Your task to perform on an android device: Do I have any events tomorrow? Image 0: 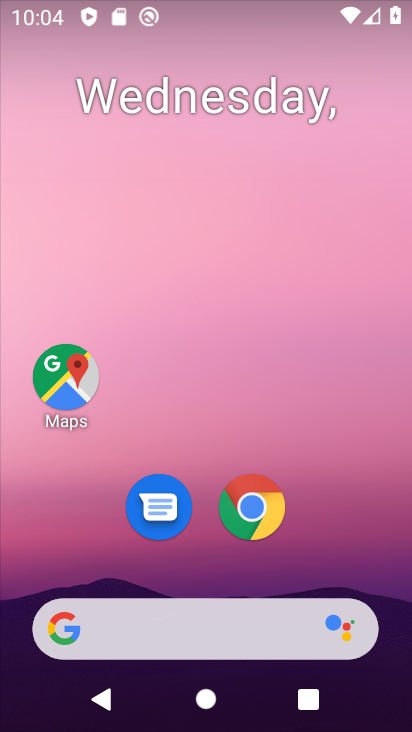
Step 0: drag from (219, 677) to (181, 386)
Your task to perform on an android device: Do I have any events tomorrow? Image 1: 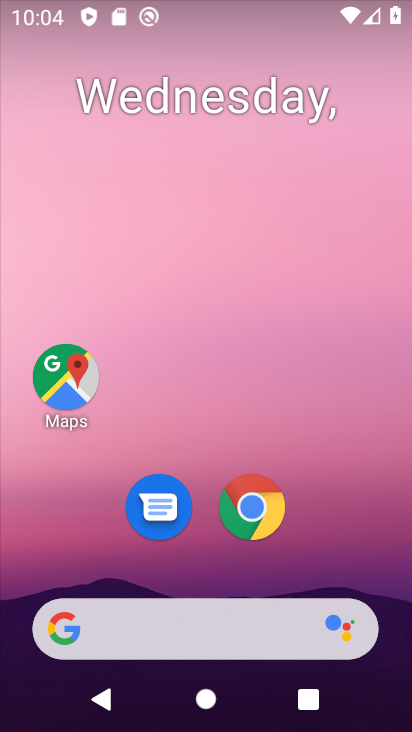
Step 1: drag from (233, 646) to (199, 174)
Your task to perform on an android device: Do I have any events tomorrow? Image 2: 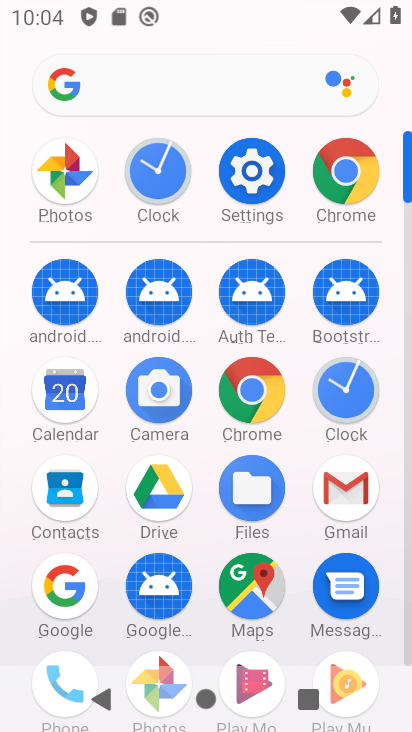
Step 2: click (63, 393)
Your task to perform on an android device: Do I have any events tomorrow? Image 3: 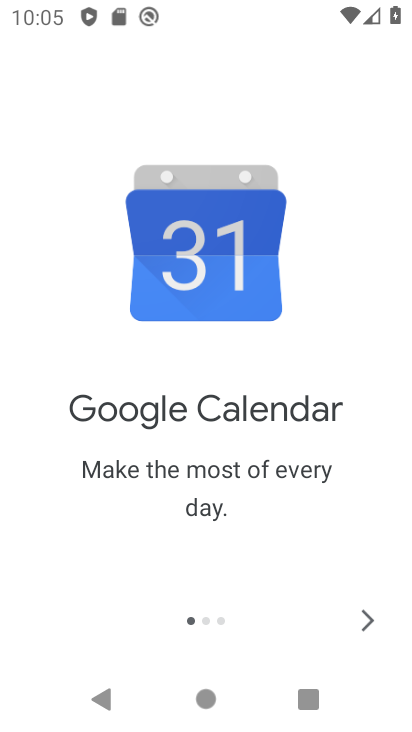
Step 3: click (356, 629)
Your task to perform on an android device: Do I have any events tomorrow? Image 4: 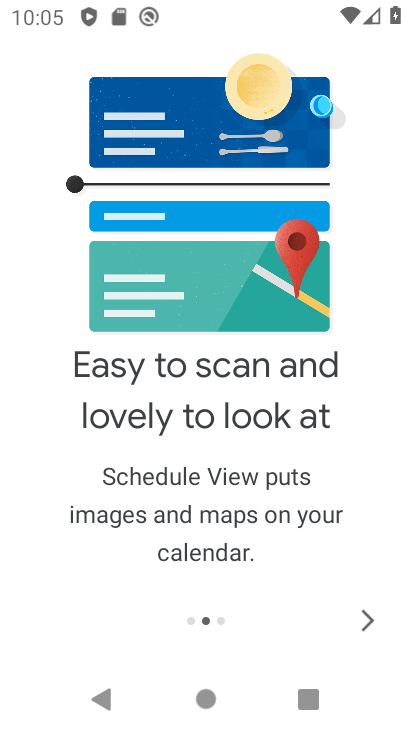
Step 4: click (361, 608)
Your task to perform on an android device: Do I have any events tomorrow? Image 5: 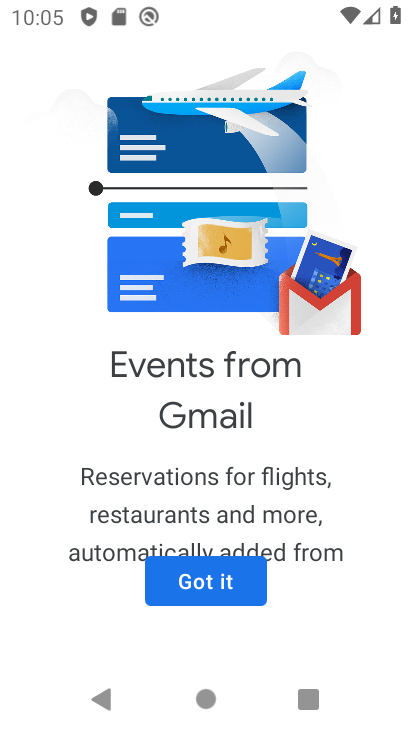
Step 5: click (347, 623)
Your task to perform on an android device: Do I have any events tomorrow? Image 6: 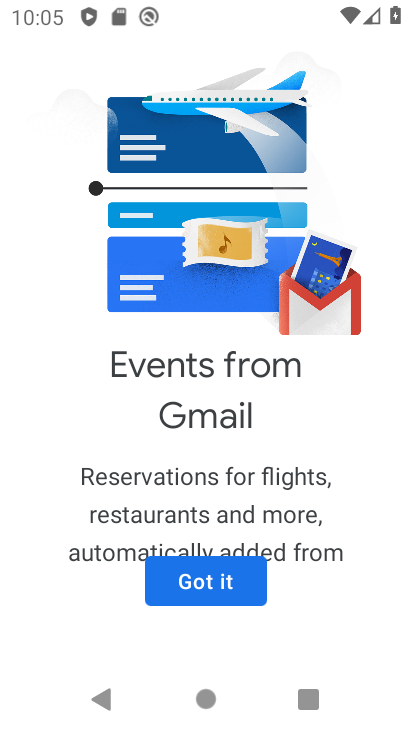
Step 6: click (191, 584)
Your task to perform on an android device: Do I have any events tomorrow? Image 7: 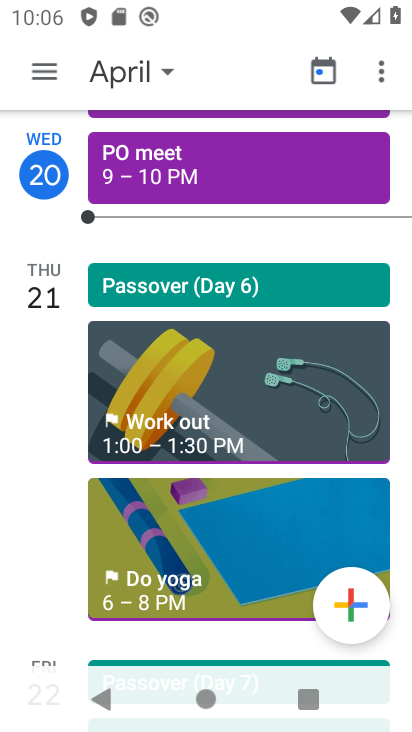
Step 7: click (54, 91)
Your task to perform on an android device: Do I have any events tomorrow? Image 8: 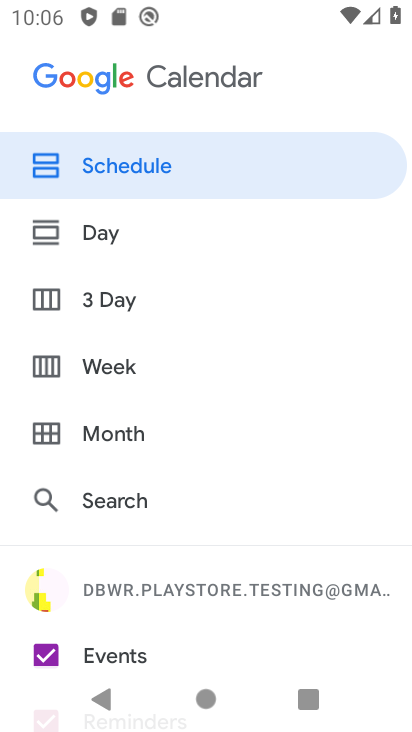
Step 8: click (87, 288)
Your task to perform on an android device: Do I have any events tomorrow? Image 9: 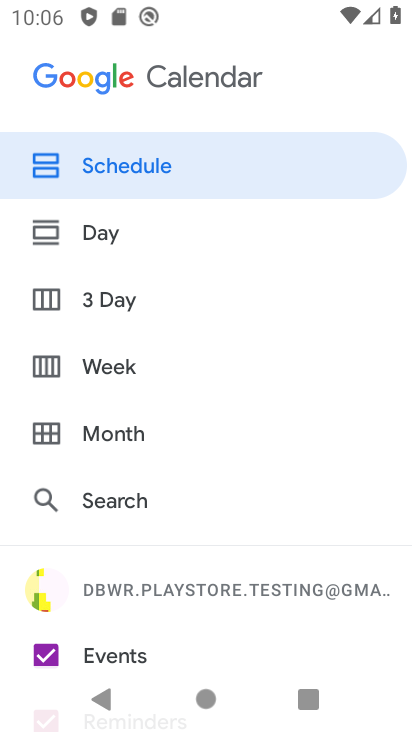
Step 9: click (92, 300)
Your task to perform on an android device: Do I have any events tomorrow? Image 10: 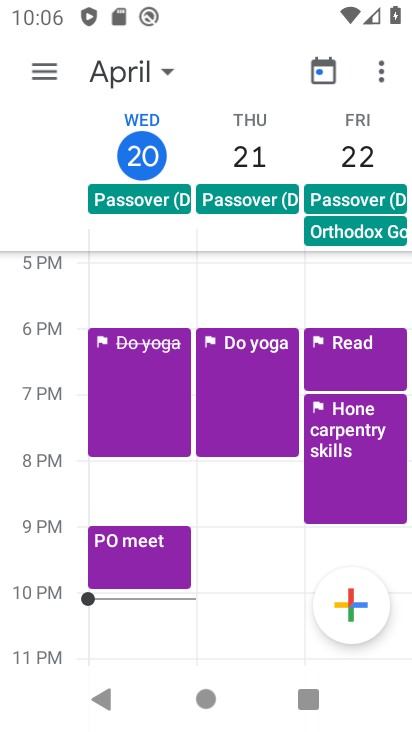
Step 10: click (242, 148)
Your task to perform on an android device: Do I have any events tomorrow? Image 11: 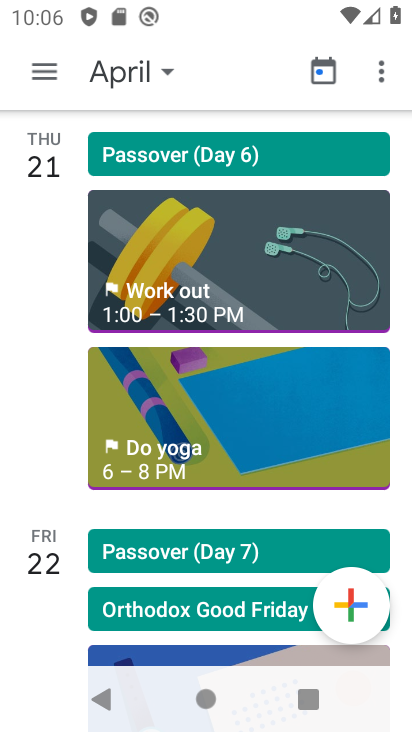
Step 11: task complete